Your task to perform on an android device: Open the map Image 0: 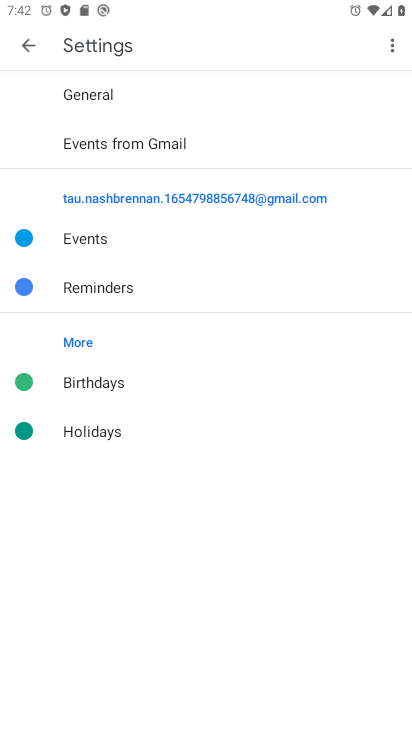
Step 0: press home button
Your task to perform on an android device: Open the map Image 1: 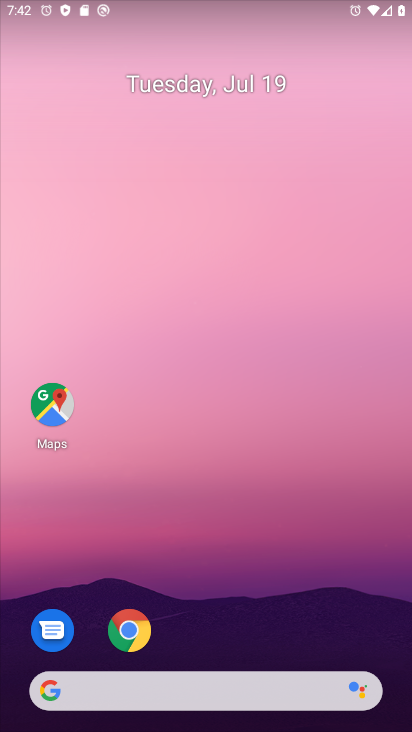
Step 1: click (58, 412)
Your task to perform on an android device: Open the map Image 2: 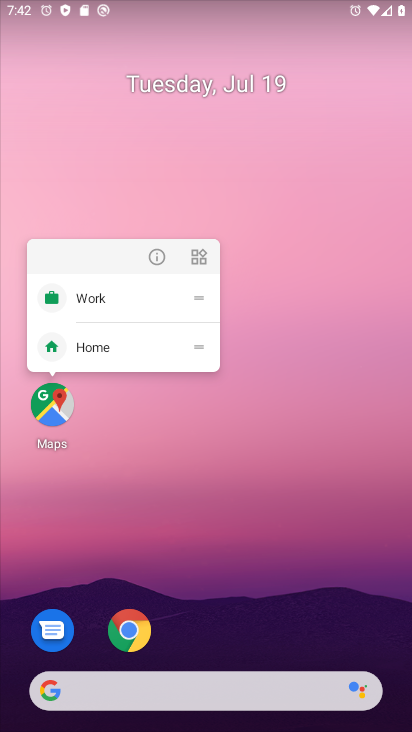
Step 2: click (42, 404)
Your task to perform on an android device: Open the map Image 3: 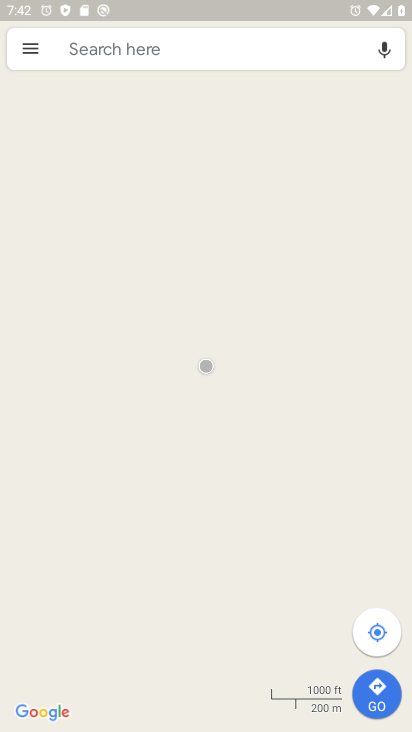
Step 3: task complete